Your task to perform on an android device: Open Google Maps and go to "Timeline" Image 0: 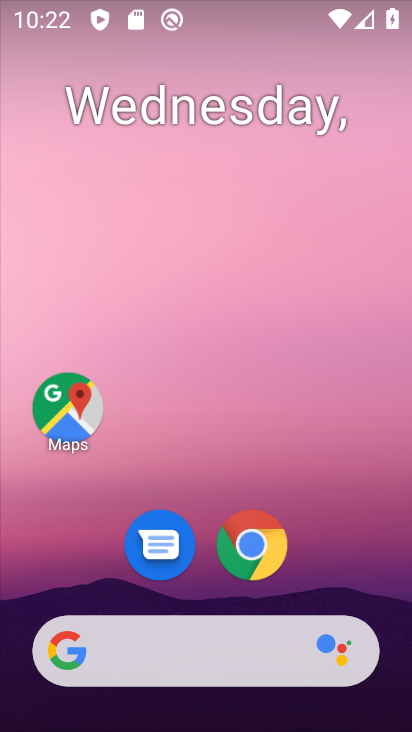
Step 0: click (103, 396)
Your task to perform on an android device: Open Google Maps and go to "Timeline" Image 1: 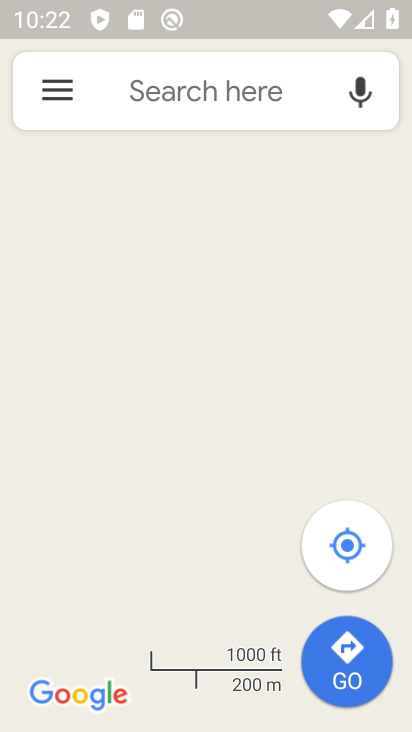
Step 1: click (60, 75)
Your task to perform on an android device: Open Google Maps and go to "Timeline" Image 2: 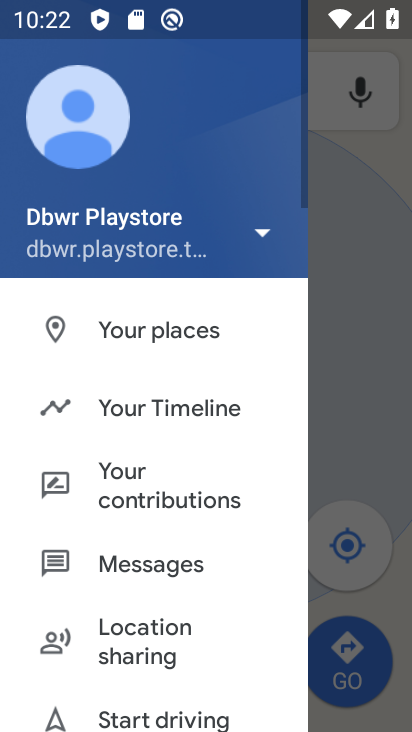
Step 2: click (231, 396)
Your task to perform on an android device: Open Google Maps and go to "Timeline" Image 3: 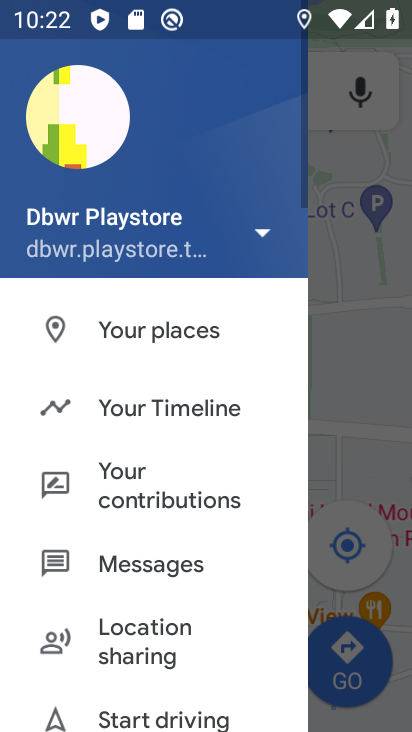
Step 3: task complete